Your task to perform on an android device: turn off priority inbox in the gmail app Image 0: 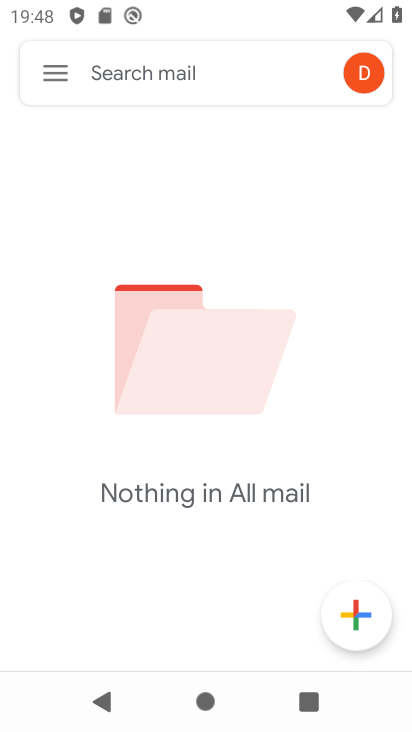
Step 0: press home button
Your task to perform on an android device: turn off priority inbox in the gmail app Image 1: 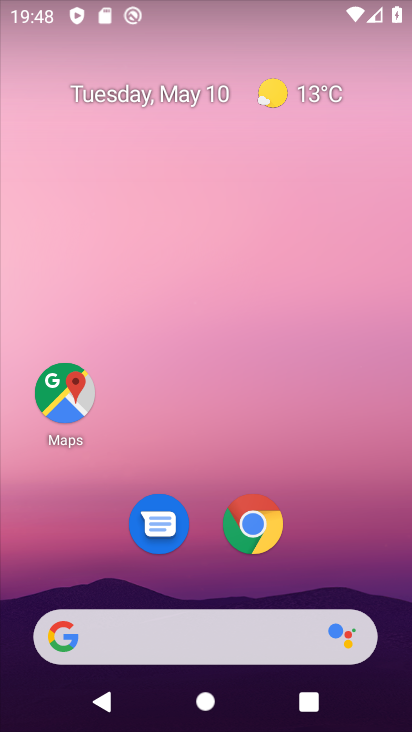
Step 1: drag from (328, 527) to (326, 112)
Your task to perform on an android device: turn off priority inbox in the gmail app Image 2: 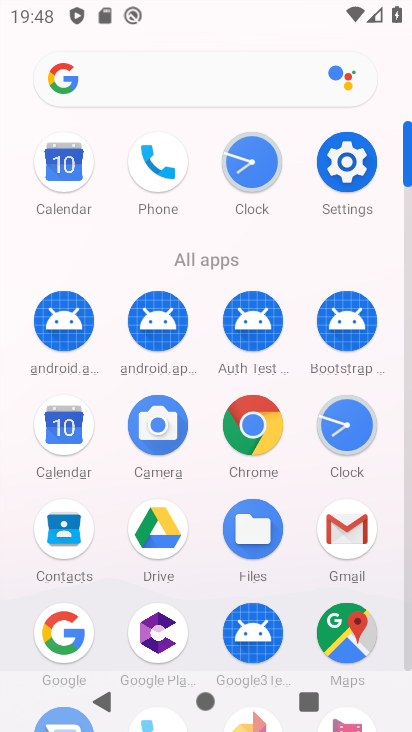
Step 2: click (345, 532)
Your task to perform on an android device: turn off priority inbox in the gmail app Image 3: 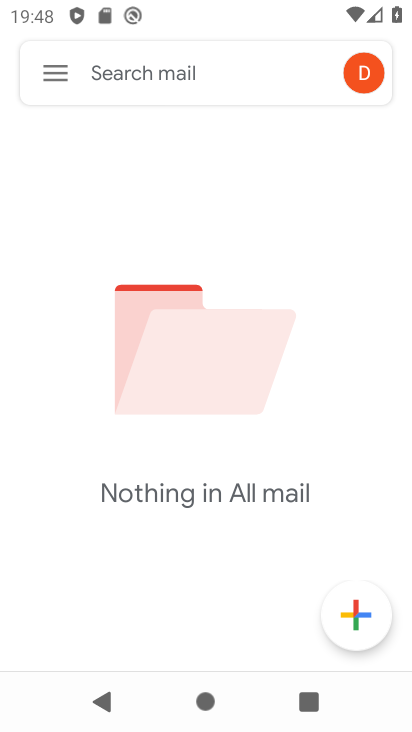
Step 3: click (56, 68)
Your task to perform on an android device: turn off priority inbox in the gmail app Image 4: 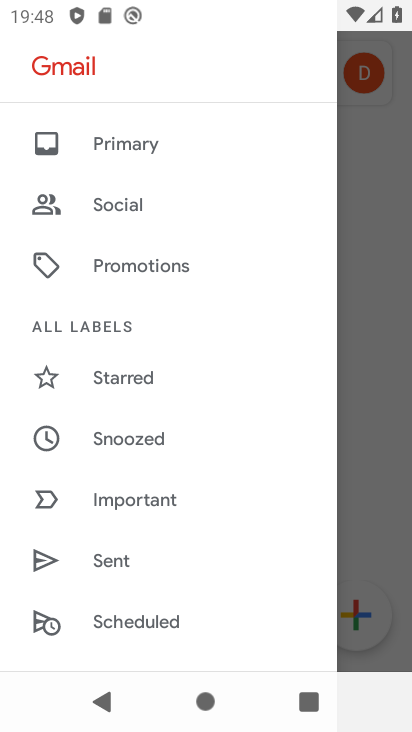
Step 4: drag from (171, 568) to (219, 110)
Your task to perform on an android device: turn off priority inbox in the gmail app Image 5: 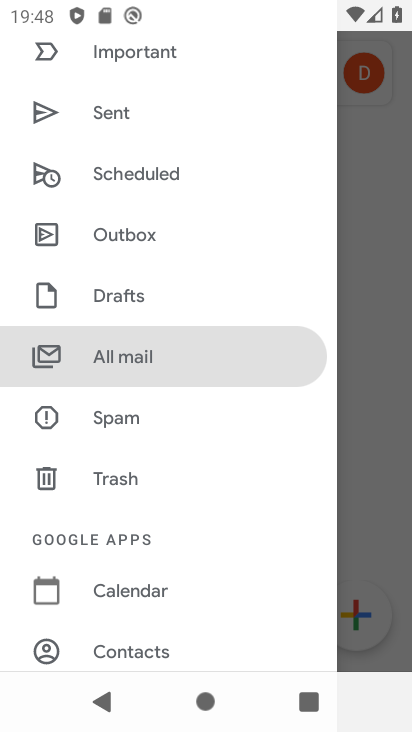
Step 5: drag from (169, 560) to (197, 203)
Your task to perform on an android device: turn off priority inbox in the gmail app Image 6: 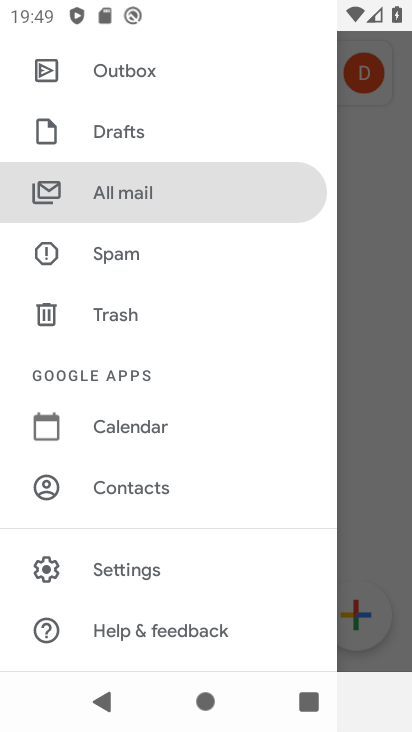
Step 6: click (133, 567)
Your task to perform on an android device: turn off priority inbox in the gmail app Image 7: 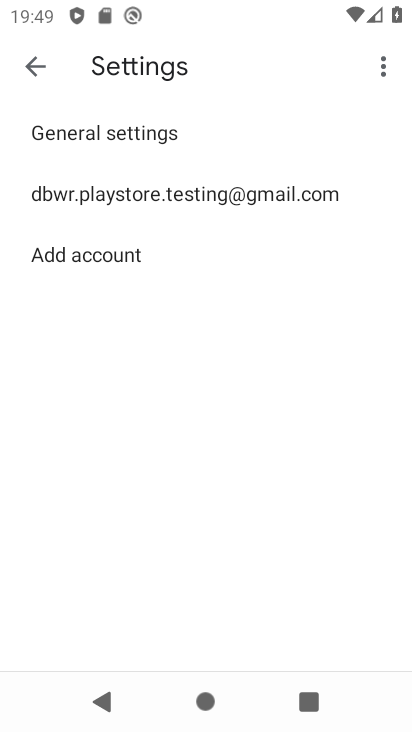
Step 7: click (232, 183)
Your task to perform on an android device: turn off priority inbox in the gmail app Image 8: 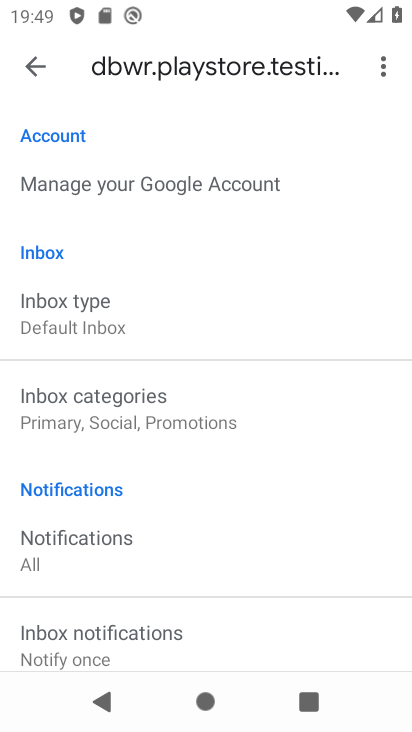
Step 8: click (93, 324)
Your task to perform on an android device: turn off priority inbox in the gmail app Image 9: 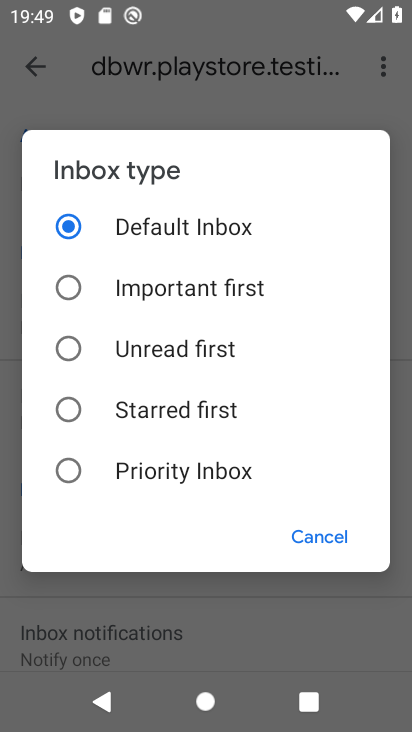
Step 9: click (64, 463)
Your task to perform on an android device: turn off priority inbox in the gmail app Image 10: 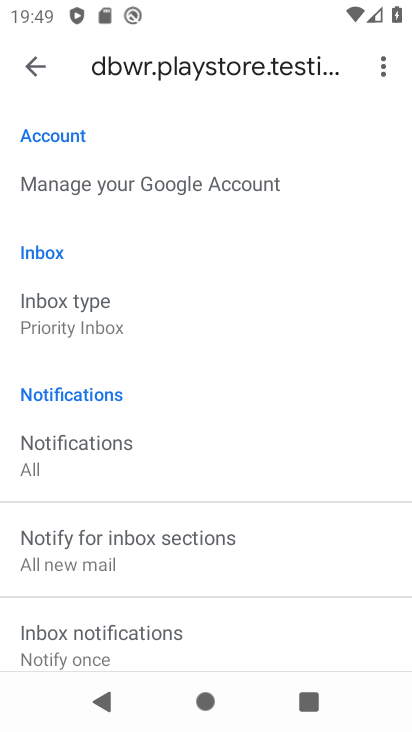
Step 10: task complete